Your task to perform on an android device: visit the assistant section in the google photos Image 0: 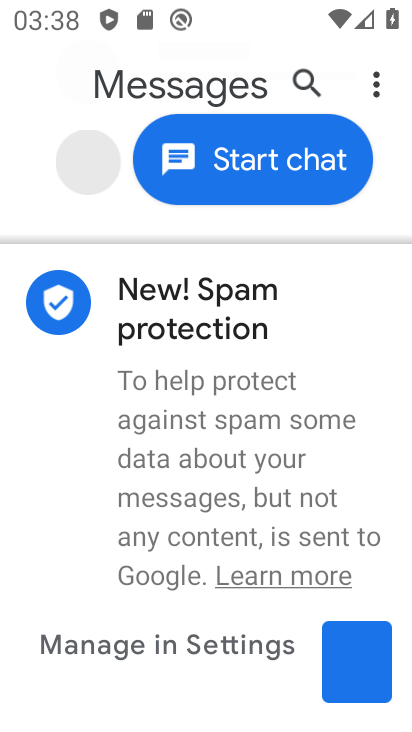
Step 0: press back button
Your task to perform on an android device: visit the assistant section in the google photos Image 1: 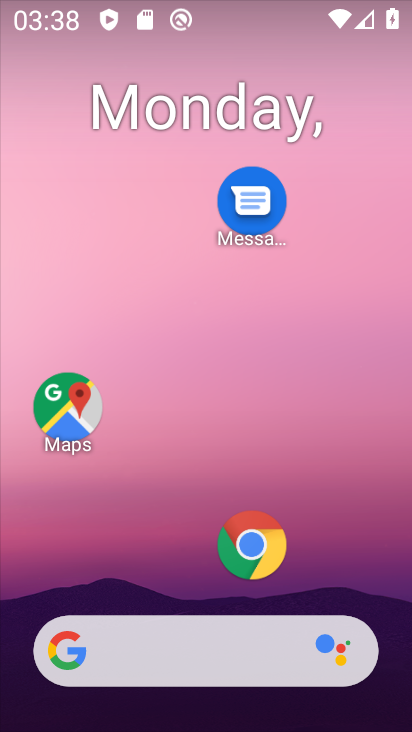
Step 1: drag from (132, 571) to (232, 107)
Your task to perform on an android device: visit the assistant section in the google photos Image 2: 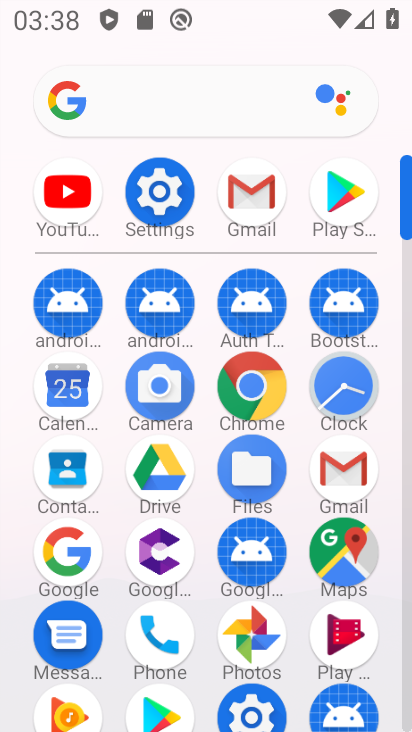
Step 2: click (248, 622)
Your task to perform on an android device: visit the assistant section in the google photos Image 3: 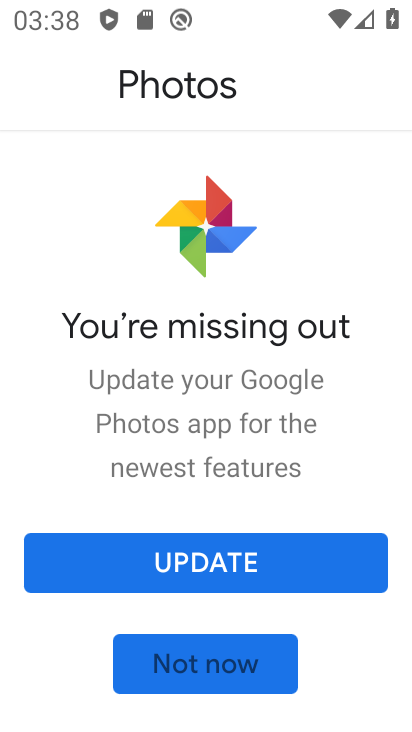
Step 3: click (189, 651)
Your task to perform on an android device: visit the assistant section in the google photos Image 4: 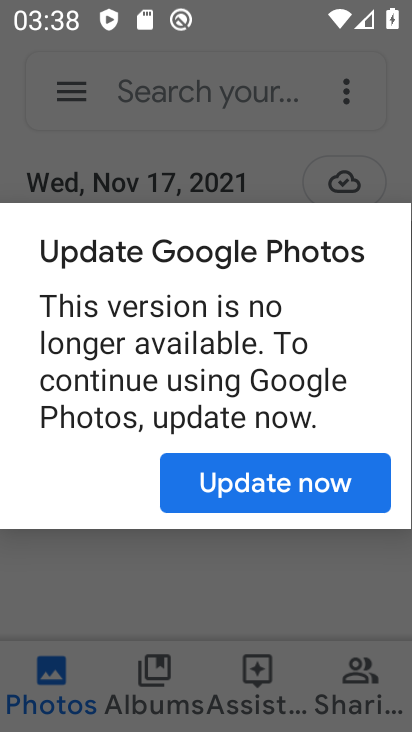
Step 4: click (249, 483)
Your task to perform on an android device: visit the assistant section in the google photos Image 5: 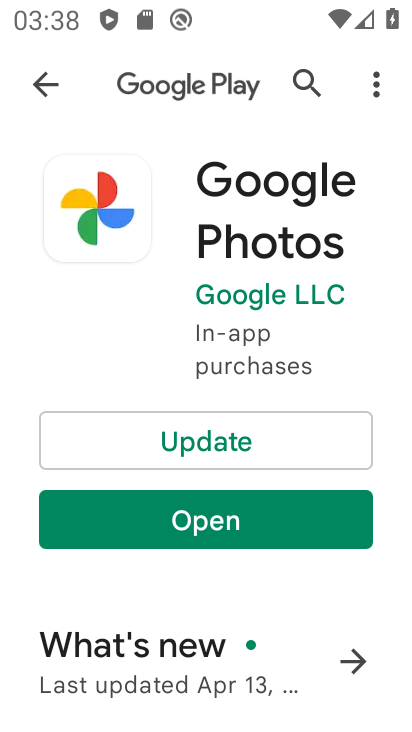
Step 5: click (242, 531)
Your task to perform on an android device: visit the assistant section in the google photos Image 6: 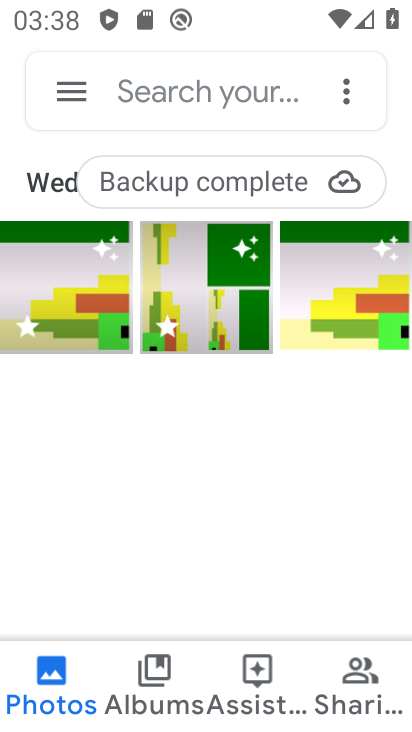
Step 6: click (254, 682)
Your task to perform on an android device: visit the assistant section in the google photos Image 7: 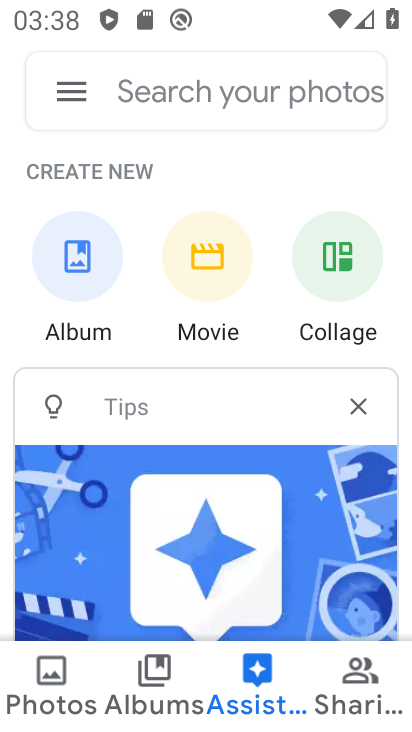
Step 7: task complete